Your task to perform on an android device: turn off location Image 0: 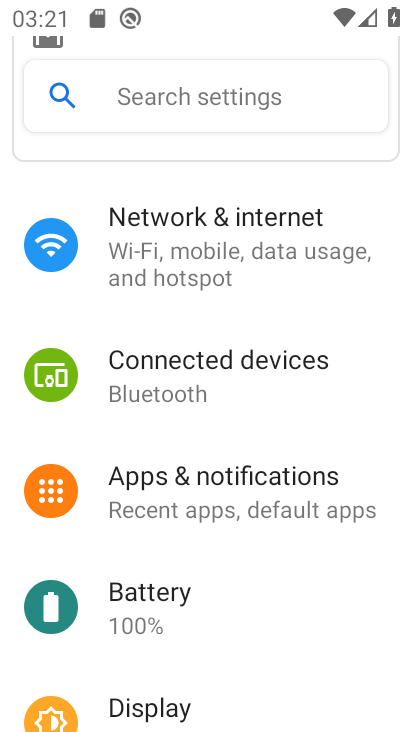
Step 0: drag from (244, 684) to (229, 156)
Your task to perform on an android device: turn off location Image 1: 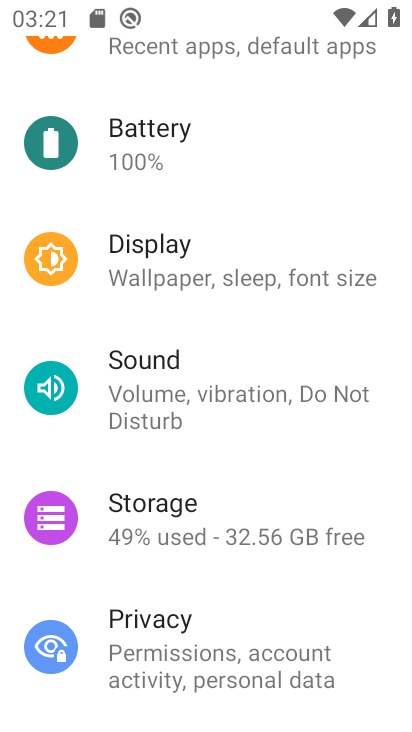
Step 1: drag from (235, 664) to (245, 206)
Your task to perform on an android device: turn off location Image 2: 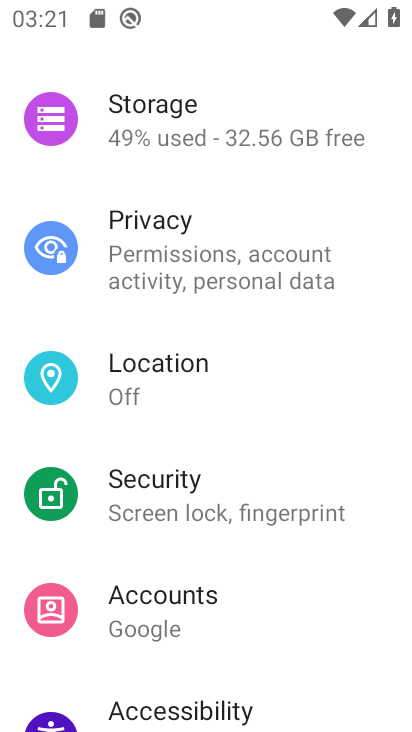
Step 2: click (218, 374)
Your task to perform on an android device: turn off location Image 3: 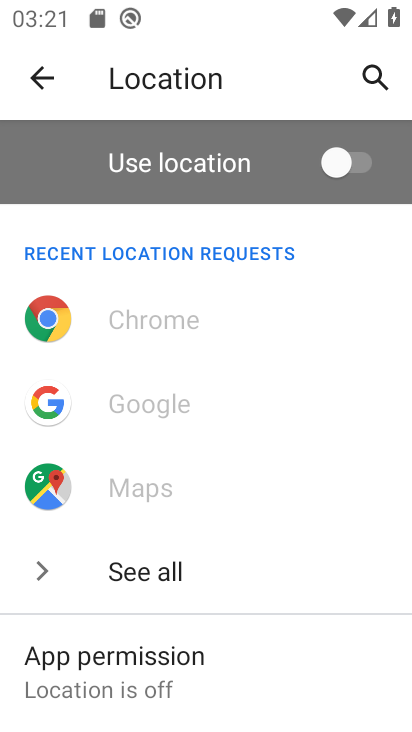
Step 3: task complete